Your task to perform on an android device: Go to Yahoo.com Image 0: 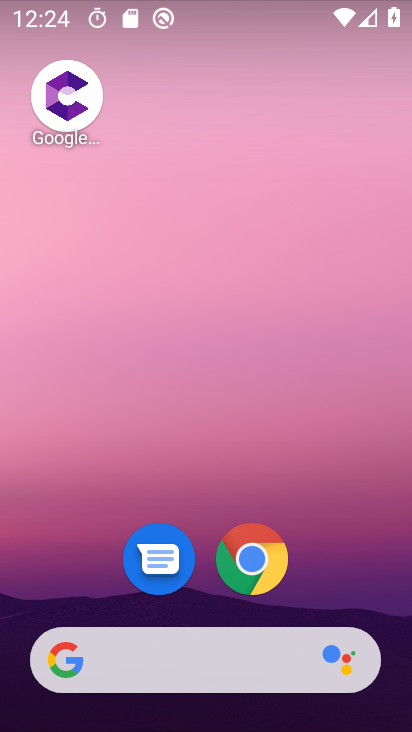
Step 0: drag from (347, 568) to (357, 211)
Your task to perform on an android device: Go to Yahoo.com Image 1: 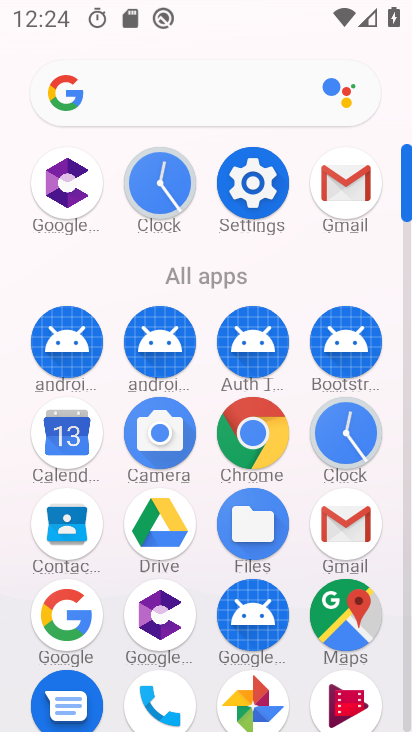
Step 1: click (250, 445)
Your task to perform on an android device: Go to Yahoo.com Image 2: 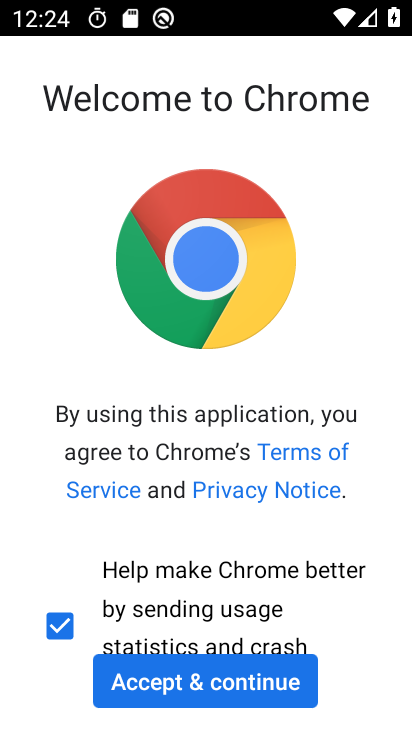
Step 2: click (231, 679)
Your task to perform on an android device: Go to Yahoo.com Image 3: 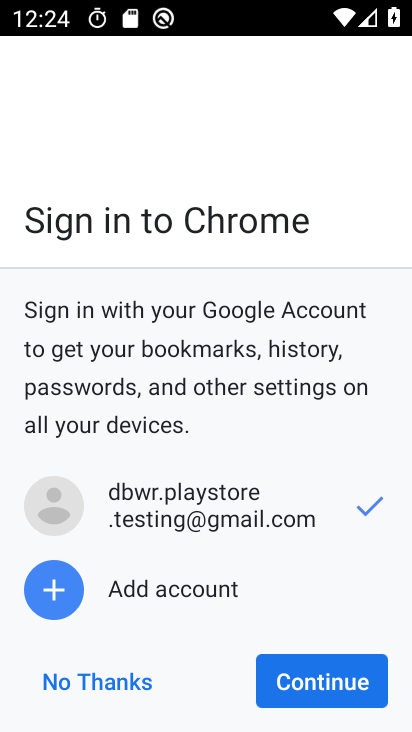
Step 3: click (325, 698)
Your task to perform on an android device: Go to Yahoo.com Image 4: 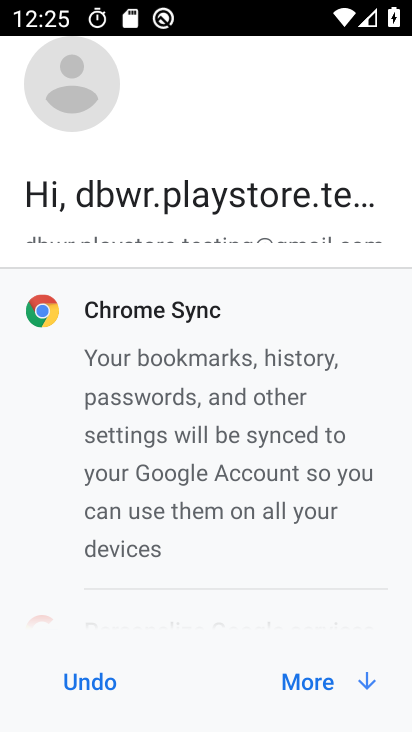
Step 4: click (321, 684)
Your task to perform on an android device: Go to Yahoo.com Image 5: 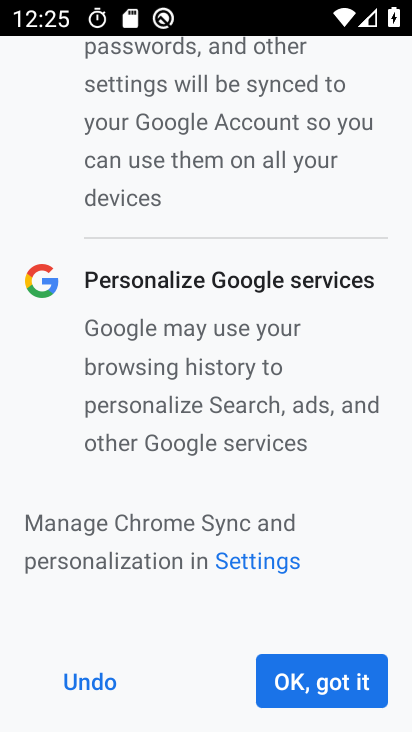
Step 5: click (321, 683)
Your task to perform on an android device: Go to Yahoo.com Image 6: 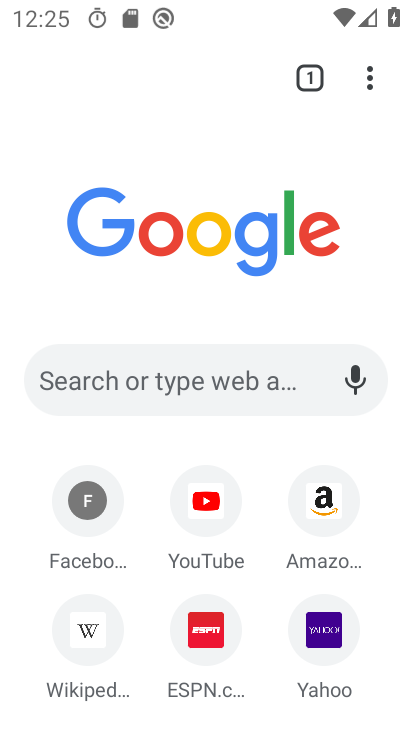
Step 6: click (325, 649)
Your task to perform on an android device: Go to Yahoo.com Image 7: 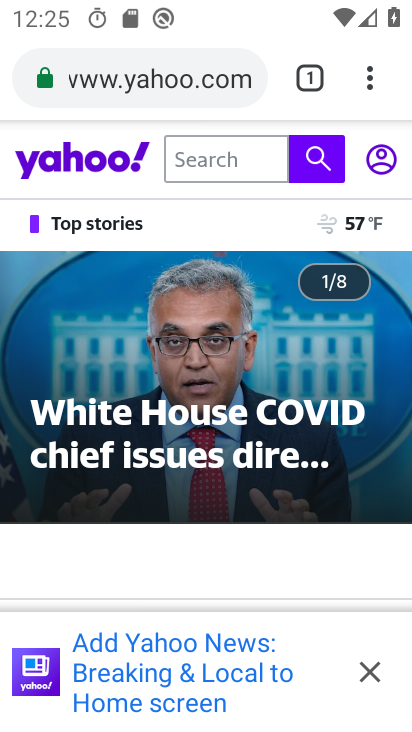
Step 7: task complete